Your task to perform on an android device: change the upload size in google photos Image 0: 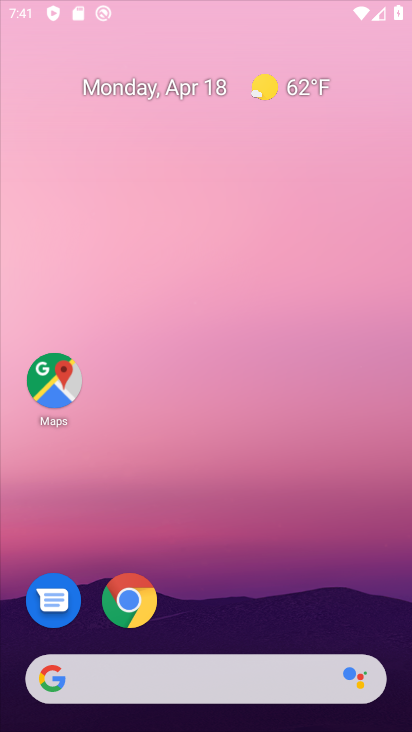
Step 0: drag from (377, 456) to (222, 2)
Your task to perform on an android device: change the upload size in google photos Image 1: 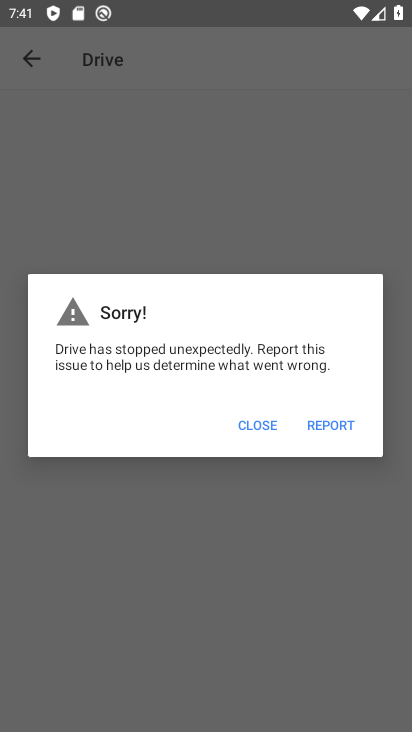
Step 1: press home button
Your task to perform on an android device: change the upload size in google photos Image 2: 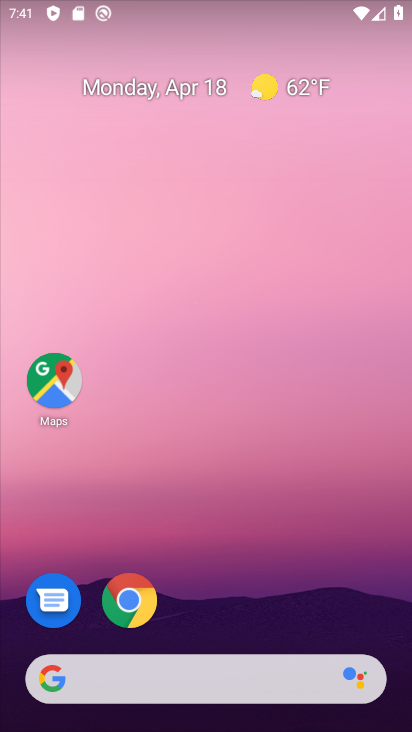
Step 2: drag from (217, 649) to (276, 1)
Your task to perform on an android device: change the upload size in google photos Image 3: 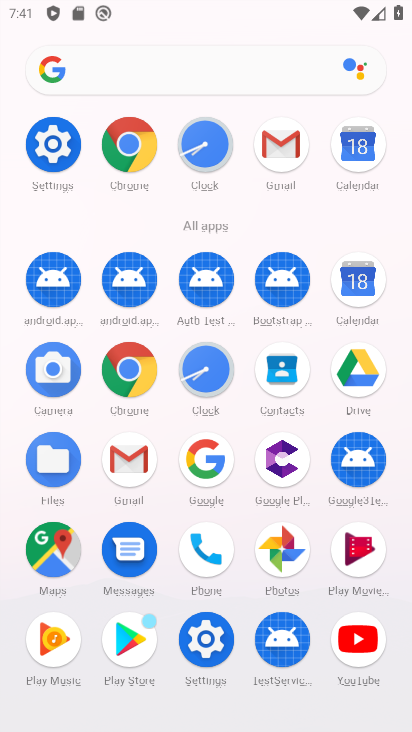
Step 3: click (277, 552)
Your task to perform on an android device: change the upload size in google photos Image 4: 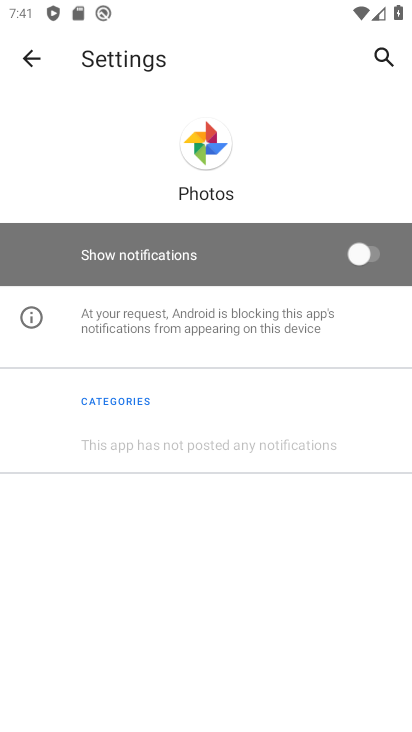
Step 4: click (23, 53)
Your task to perform on an android device: change the upload size in google photos Image 5: 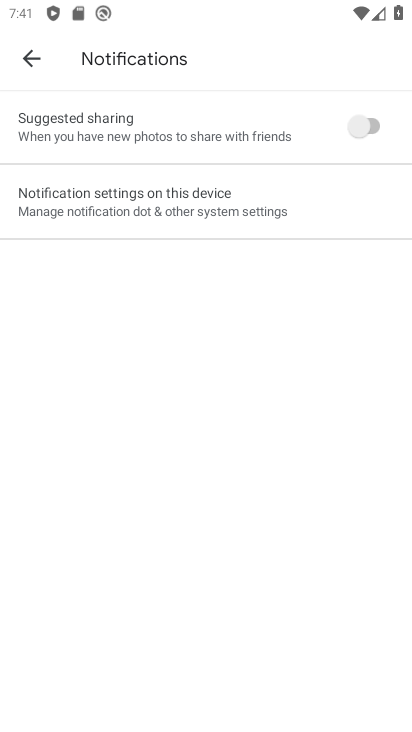
Step 5: click (23, 52)
Your task to perform on an android device: change the upload size in google photos Image 6: 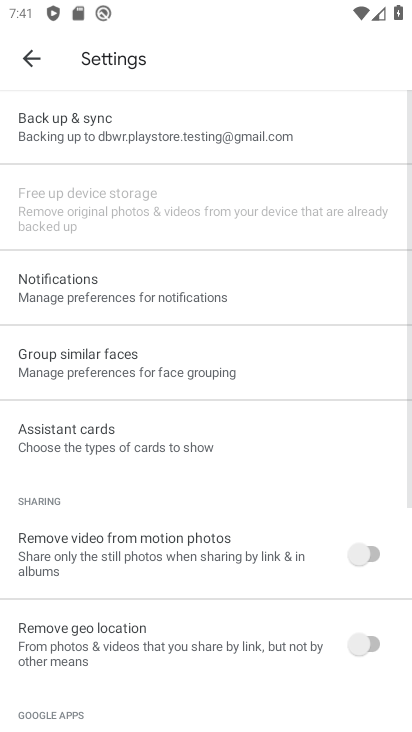
Step 6: click (92, 124)
Your task to perform on an android device: change the upload size in google photos Image 7: 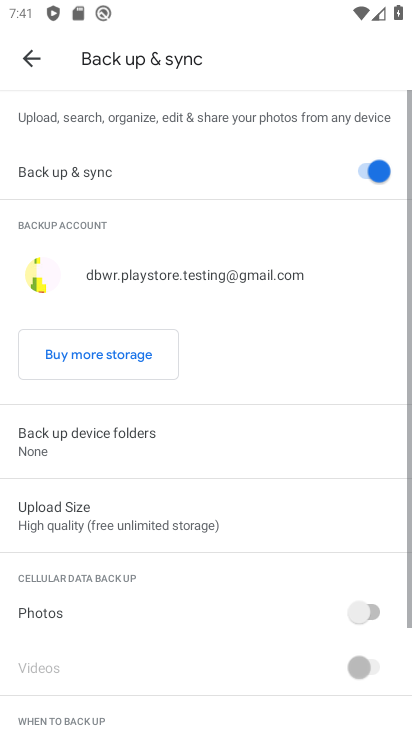
Step 7: drag from (204, 436) to (180, 309)
Your task to perform on an android device: change the upload size in google photos Image 8: 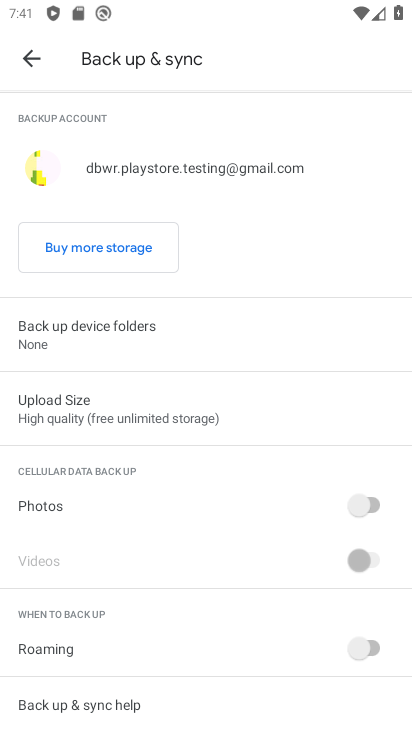
Step 8: click (114, 395)
Your task to perform on an android device: change the upload size in google photos Image 9: 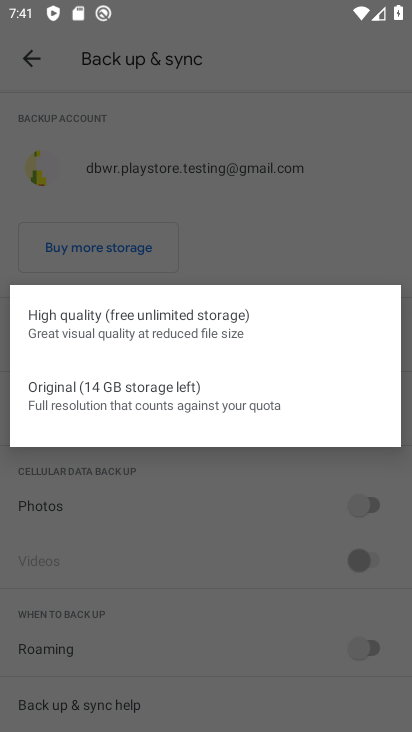
Step 9: click (114, 395)
Your task to perform on an android device: change the upload size in google photos Image 10: 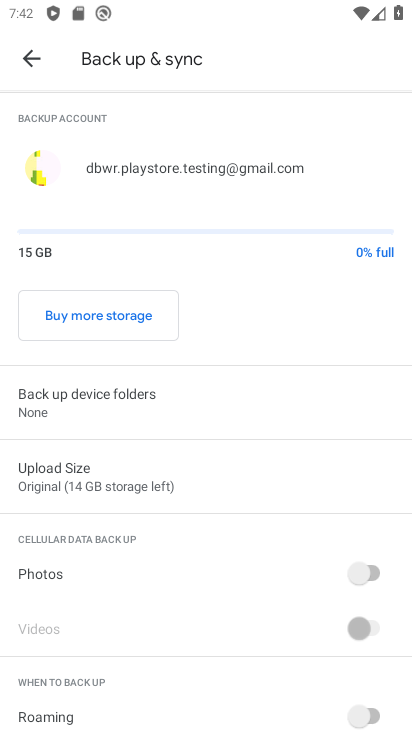
Step 10: task complete